Your task to perform on an android device: turn off notifications in google photos Image 0: 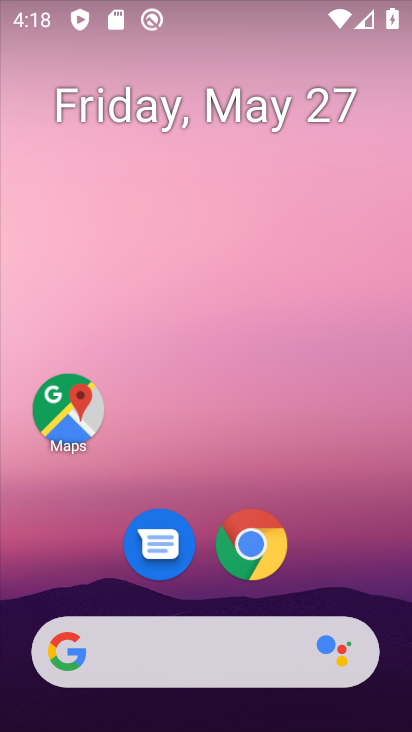
Step 0: drag from (54, 596) to (239, 106)
Your task to perform on an android device: turn off notifications in google photos Image 1: 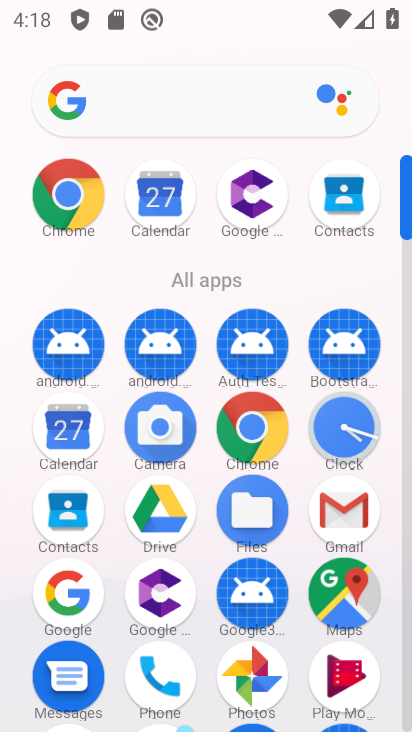
Step 1: drag from (171, 550) to (239, 339)
Your task to perform on an android device: turn off notifications in google photos Image 2: 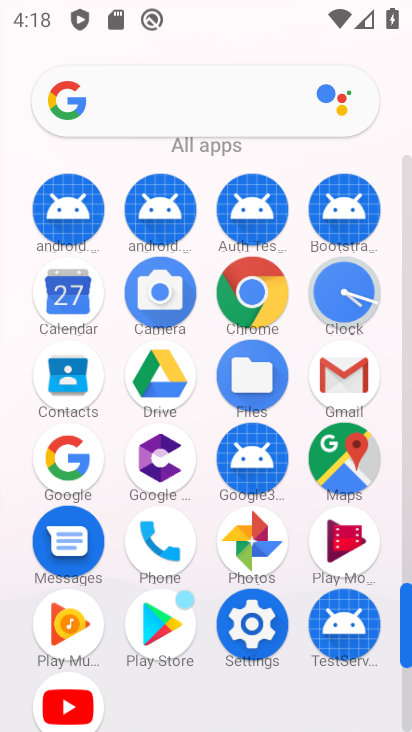
Step 2: click (259, 546)
Your task to perform on an android device: turn off notifications in google photos Image 3: 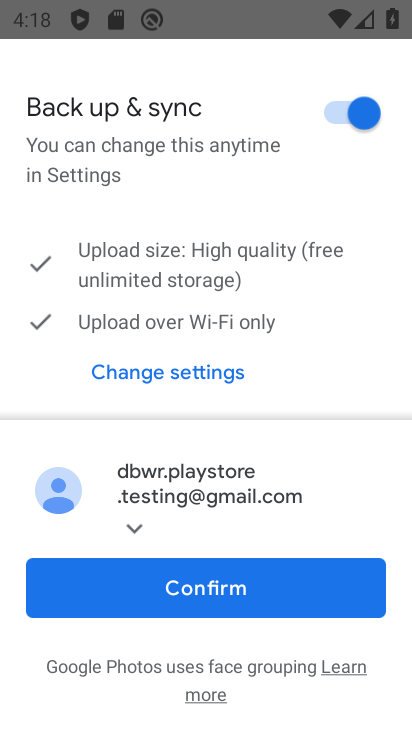
Step 3: click (309, 611)
Your task to perform on an android device: turn off notifications in google photos Image 4: 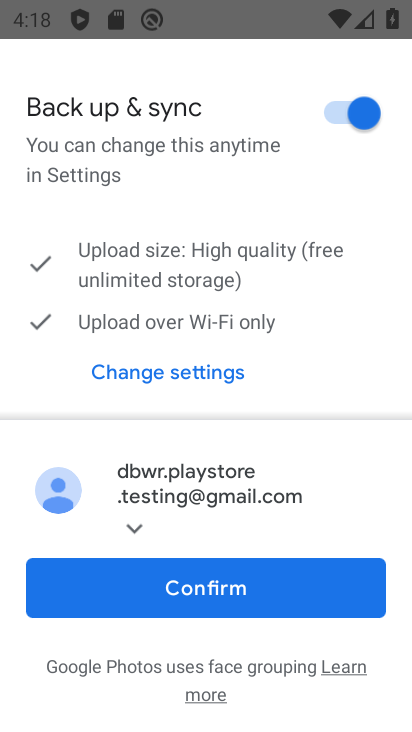
Step 4: click (282, 606)
Your task to perform on an android device: turn off notifications in google photos Image 5: 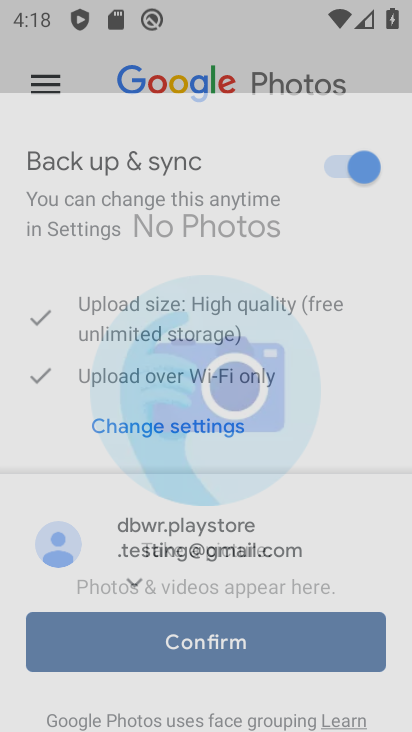
Step 5: click (282, 606)
Your task to perform on an android device: turn off notifications in google photos Image 6: 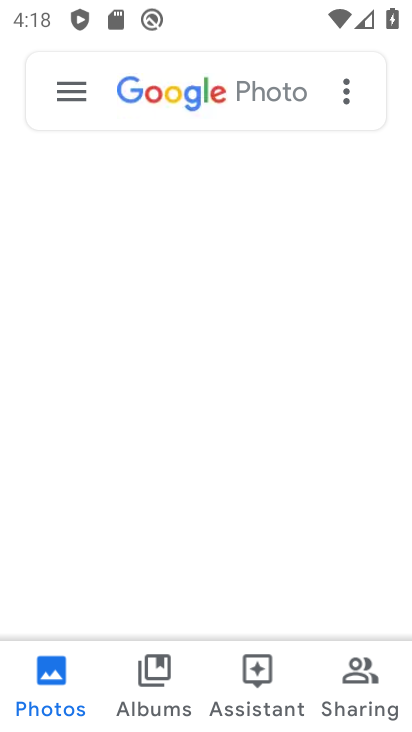
Step 6: click (68, 96)
Your task to perform on an android device: turn off notifications in google photos Image 7: 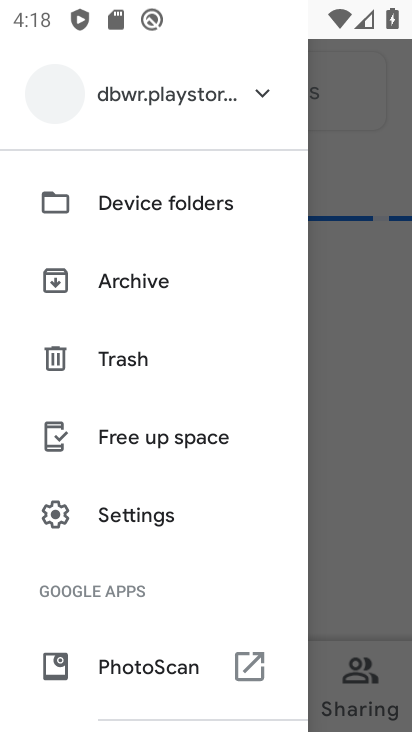
Step 7: drag from (210, 628) to (263, 317)
Your task to perform on an android device: turn off notifications in google photos Image 8: 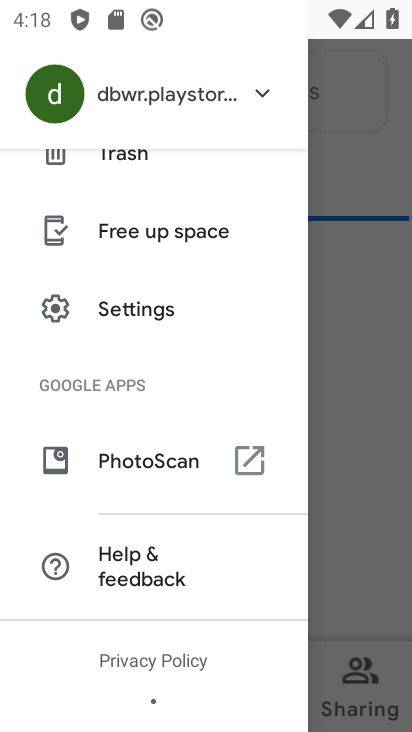
Step 8: click (138, 320)
Your task to perform on an android device: turn off notifications in google photos Image 9: 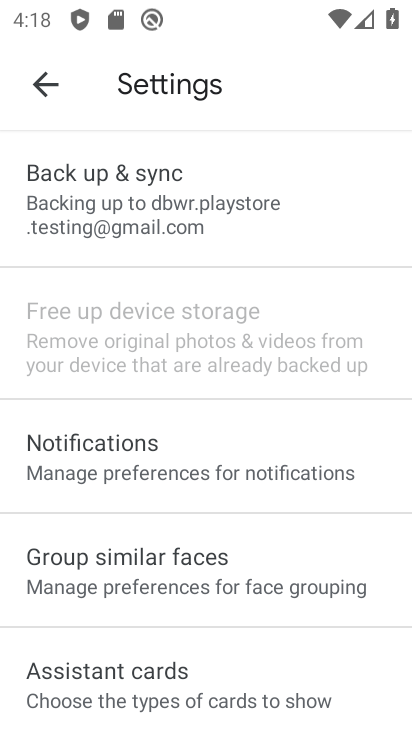
Step 9: click (160, 493)
Your task to perform on an android device: turn off notifications in google photos Image 10: 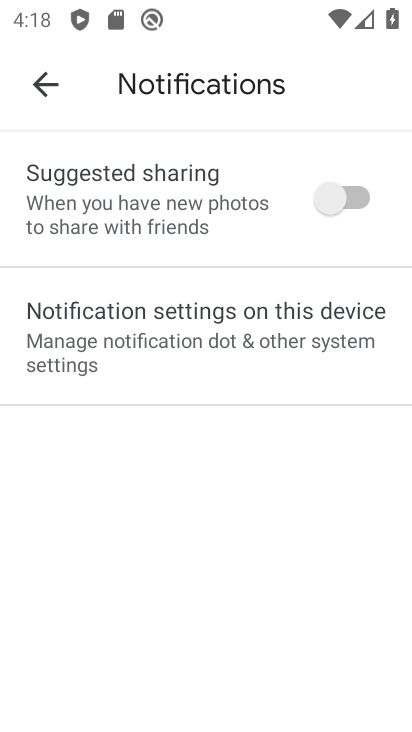
Step 10: click (307, 377)
Your task to perform on an android device: turn off notifications in google photos Image 11: 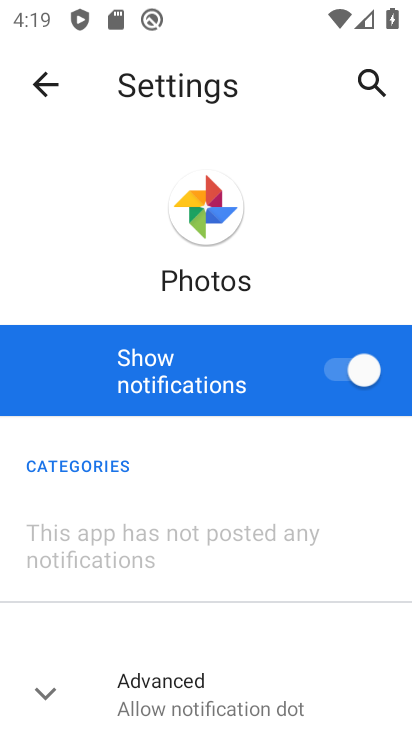
Step 11: click (346, 379)
Your task to perform on an android device: turn off notifications in google photos Image 12: 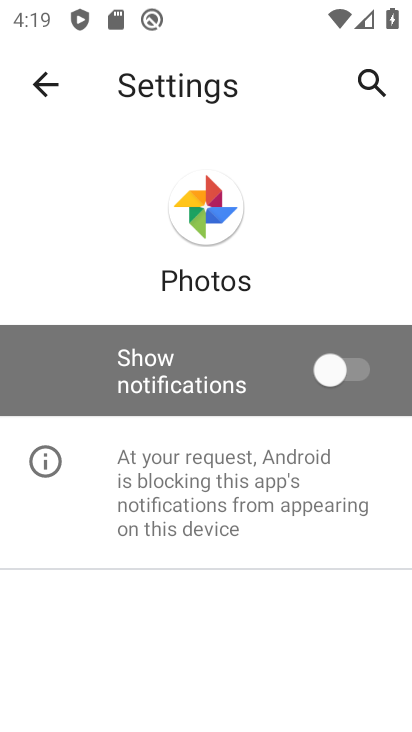
Step 12: task complete